Your task to perform on an android device: change text size in settings app Image 0: 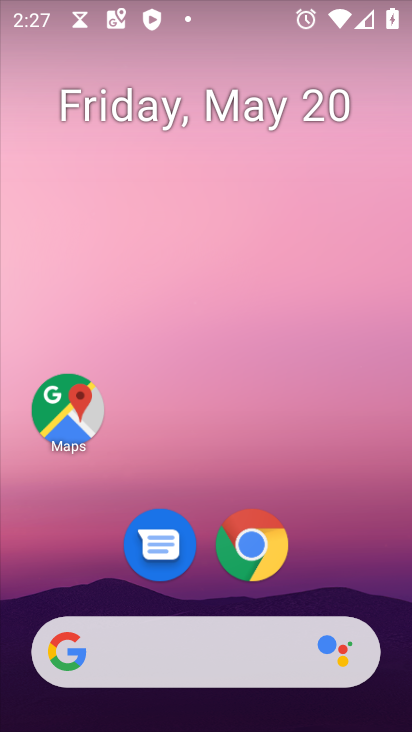
Step 0: drag from (316, 556) to (275, 235)
Your task to perform on an android device: change text size in settings app Image 1: 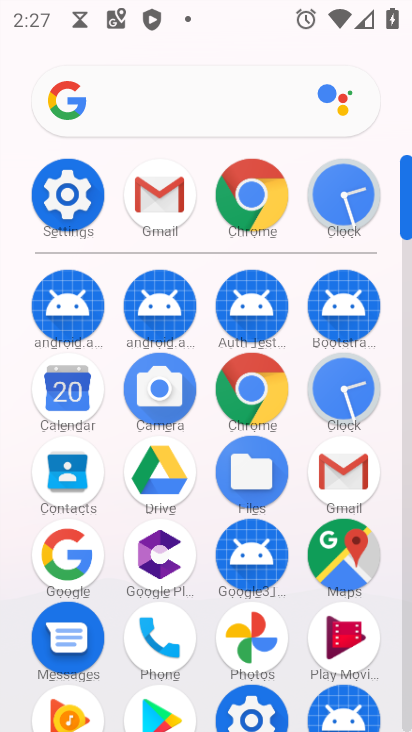
Step 1: click (62, 199)
Your task to perform on an android device: change text size in settings app Image 2: 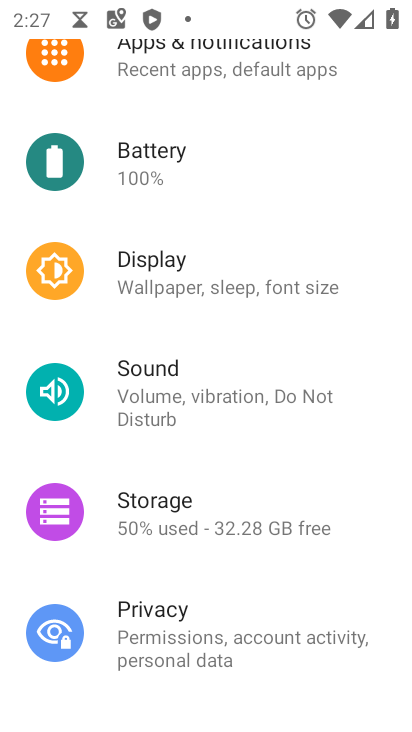
Step 2: drag from (309, 214) to (305, 476)
Your task to perform on an android device: change text size in settings app Image 3: 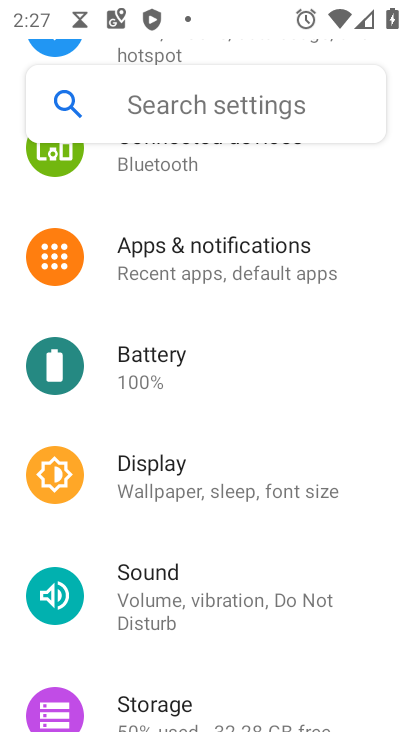
Step 3: click (227, 494)
Your task to perform on an android device: change text size in settings app Image 4: 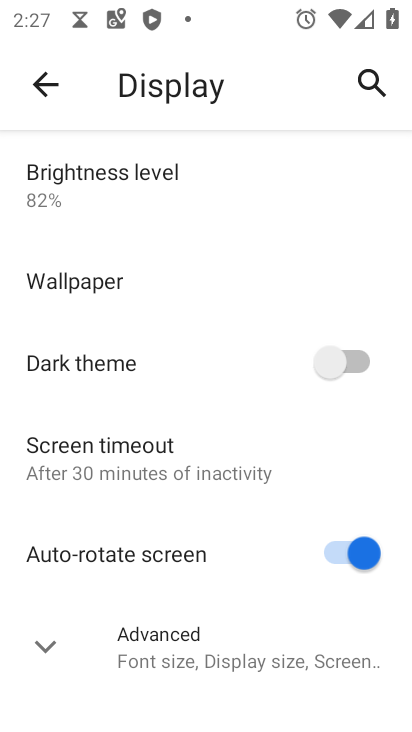
Step 4: click (211, 642)
Your task to perform on an android device: change text size in settings app Image 5: 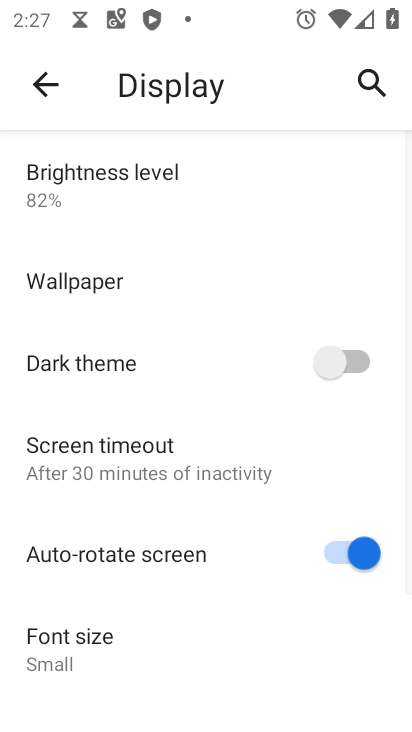
Step 5: drag from (234, 602) to (210, 382)
Your task to perform on an android device: change text size in settings app Image 6: 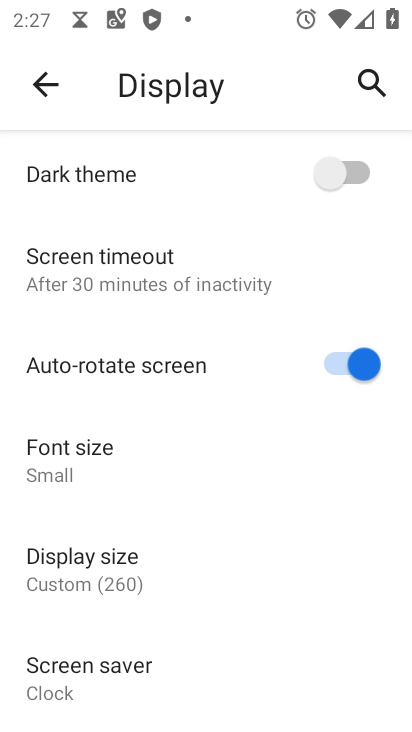
Step 6: click (99, 472)
Your task to perform on an android device: change text size in settings app Image 7: 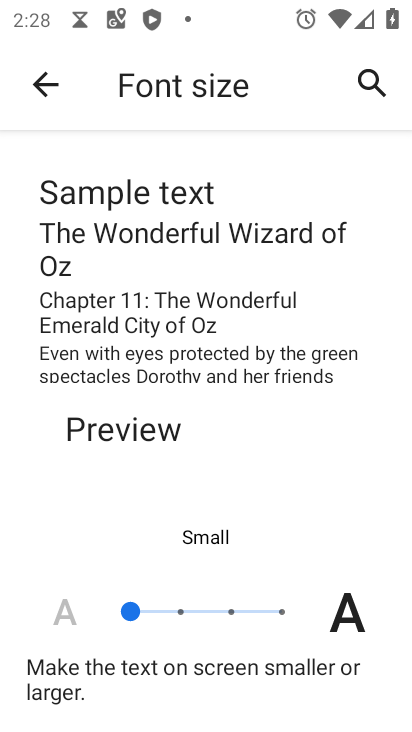
Step 7: click (180, 607)
Your task to perform on an android device: change text size in settings app Image 8: 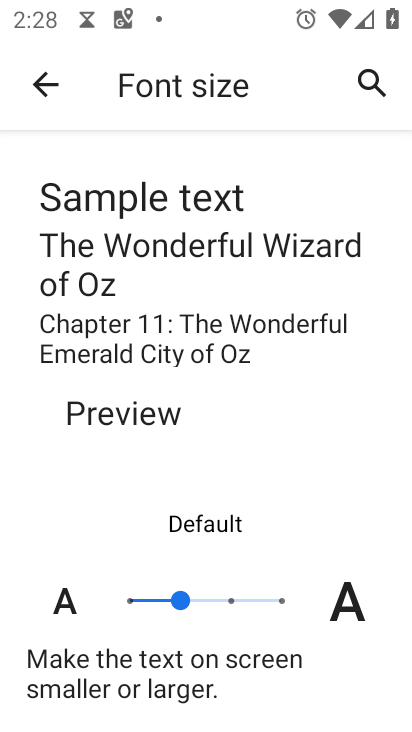
Step 8: task complete